Your task to perform on an android device: empty trash in the gmail app Image 0: 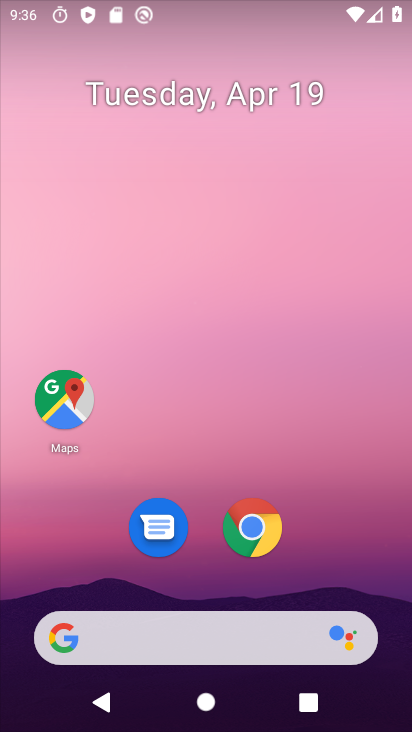
Step 0: drag from (241, 678) to (329, 266)
Your task to perform on an android device: empty trash in the gmail app Image 1: 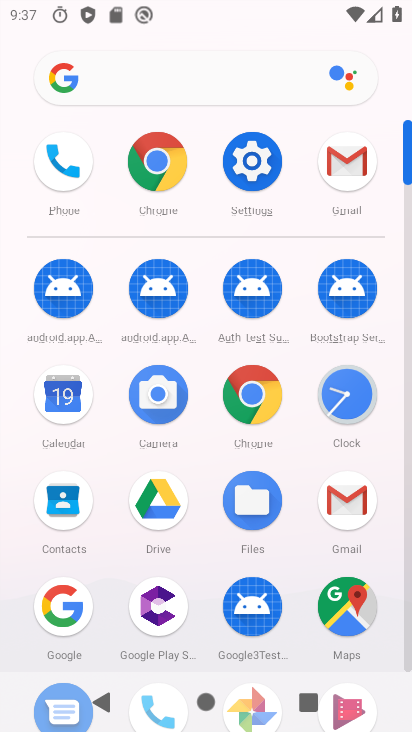
Step 1: click (346, 171)
Your task to perform on an android device: empty trash in the gmail app Image 2: 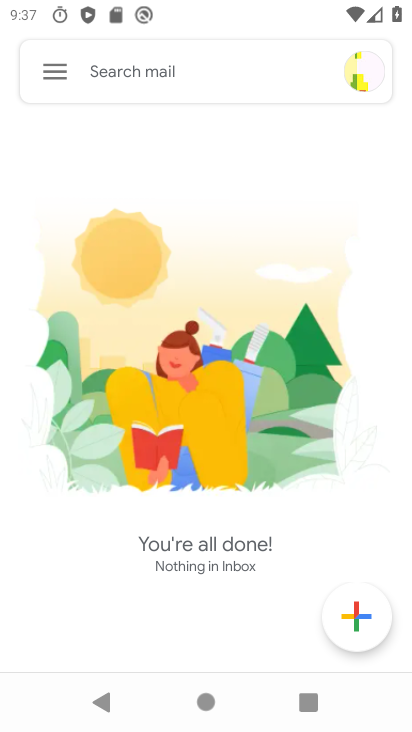
Step 2: click (68, 70)
Your task to perform on an android device: empty trash in the gmail app Image 3: 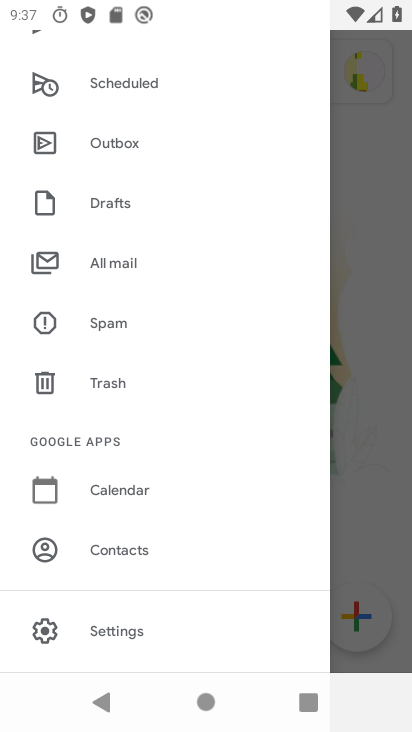
Step 3: click (120, 388)
Your task to perform on an android device: empty trash in the gmail app Image 4: 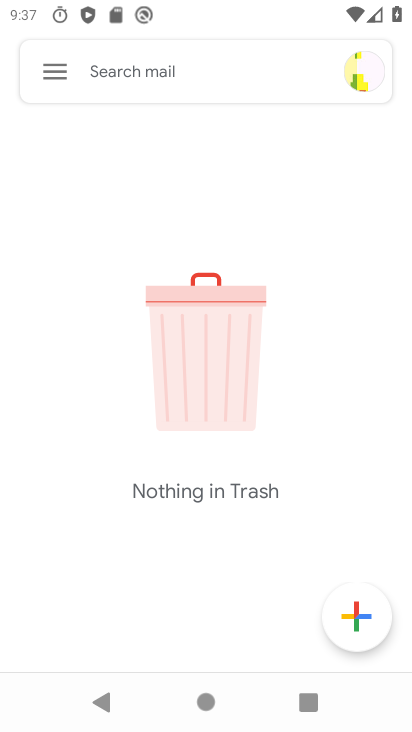
Step 4: task complete